Your task to perform on an android device: Clear all items from cart on costco. Search for "duracell triple a" on costco, select the first entry, and add it to the cart. Image 0: 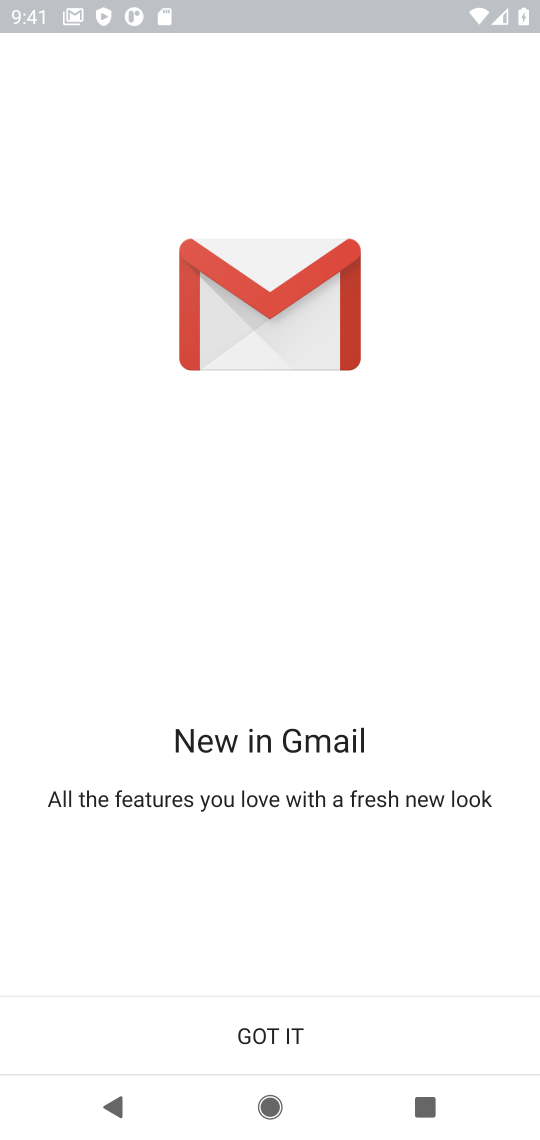
Step 0: press home button
Your task to perform on an android device: Clear all items from cart on costco. Search for "duracell triple a" on costco, select the first entry, and add it to the cart. Image 1: 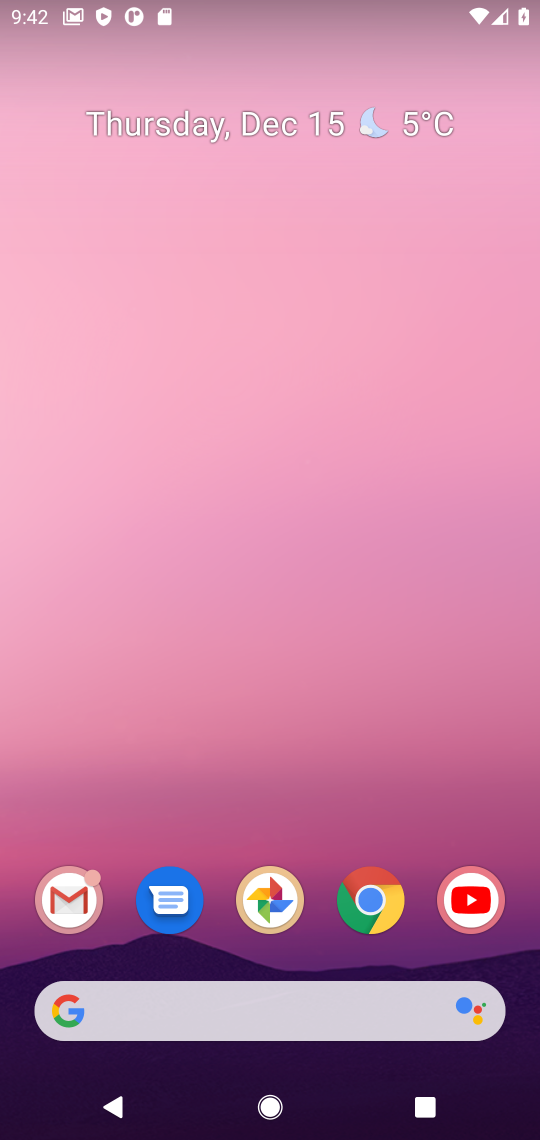
Step 1: click (383, 904)
Your task to perform on an android device: Clear all items from cart on costco. Search for "duracell triple a" on costco, select the first entry, and add it to the cart. Image 2: 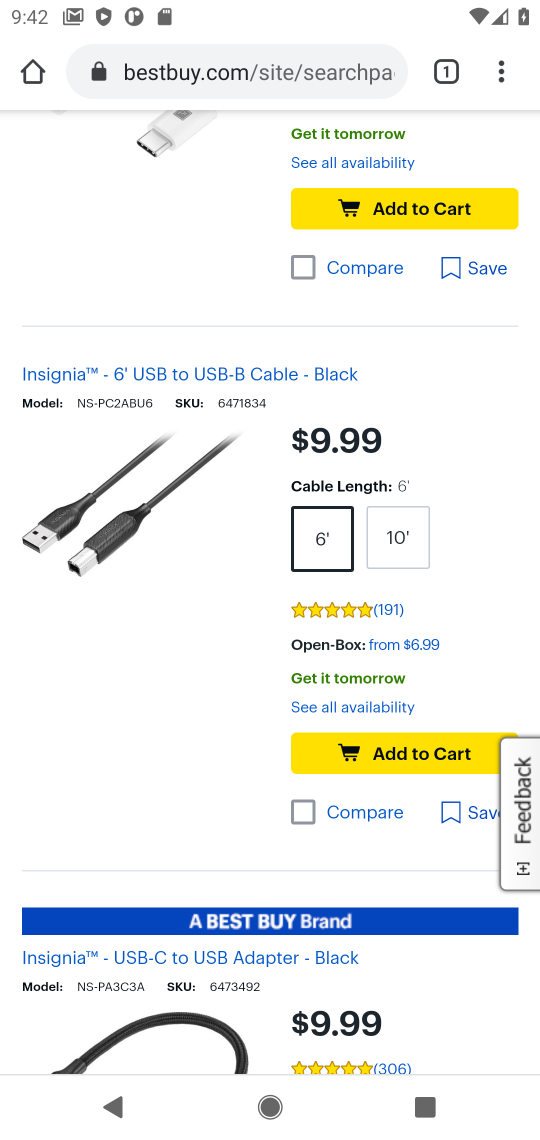
Step 2: click (227, 78)
Your task to perform on an android device: Clear all items from cart on costco. Search for "duracell triple a" on costco, select the first entry, and add it to the cart. Image 3: 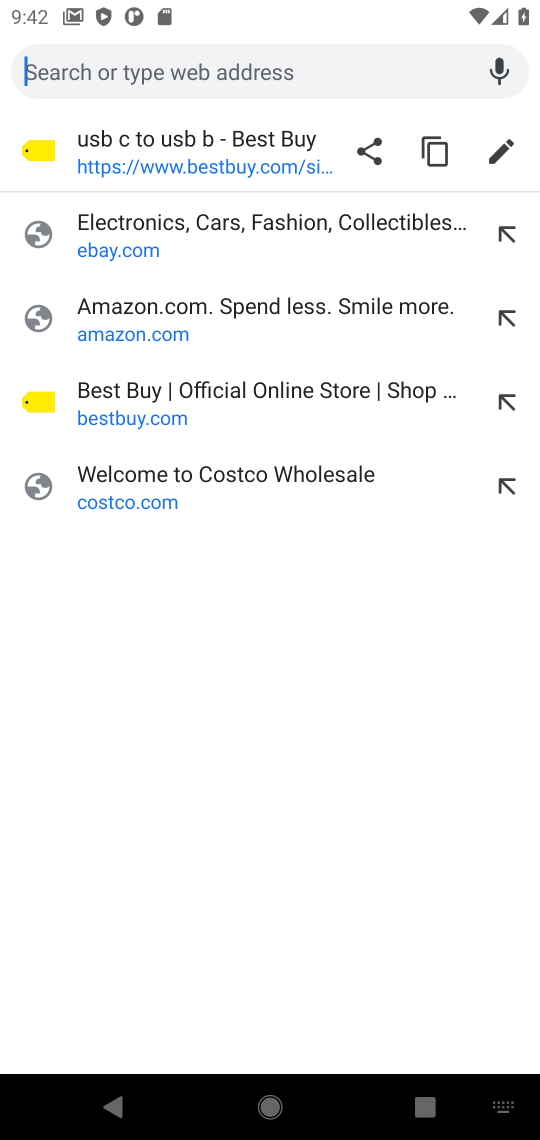
Step 3: type "costco"
Your task to perform on an android device: Clear all items from cart on costco. Search for "duracell triple a" on costco, select the first entry, and add it to the cart. Image 4: 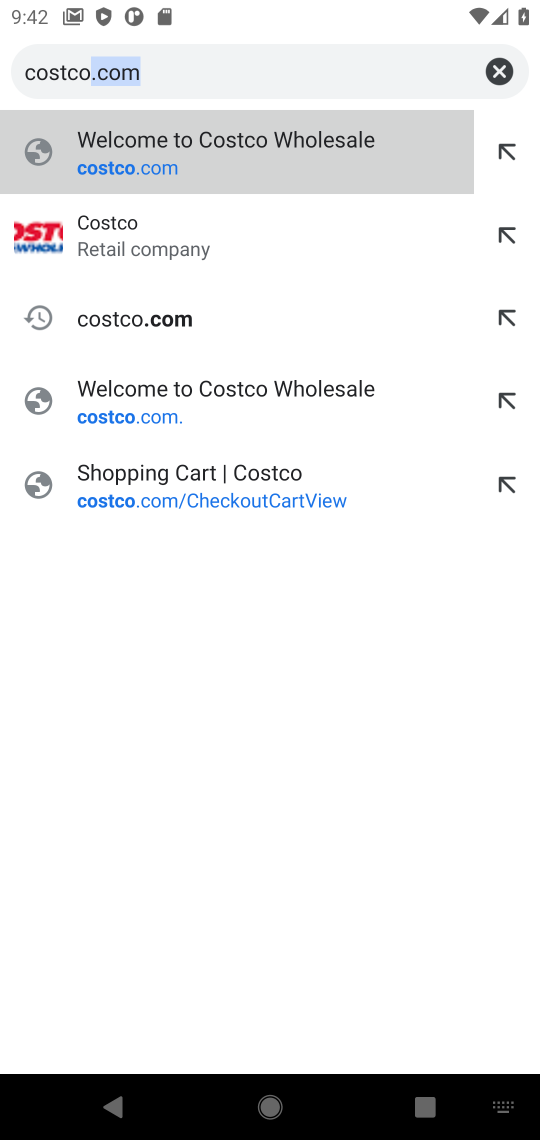
Step 4: click (281, 157)
Your task to perform on an android device: Clear all items from cart on costco. Search for "duracell triple a" on costco, select the first entry, and add it to the cart. Image 5: 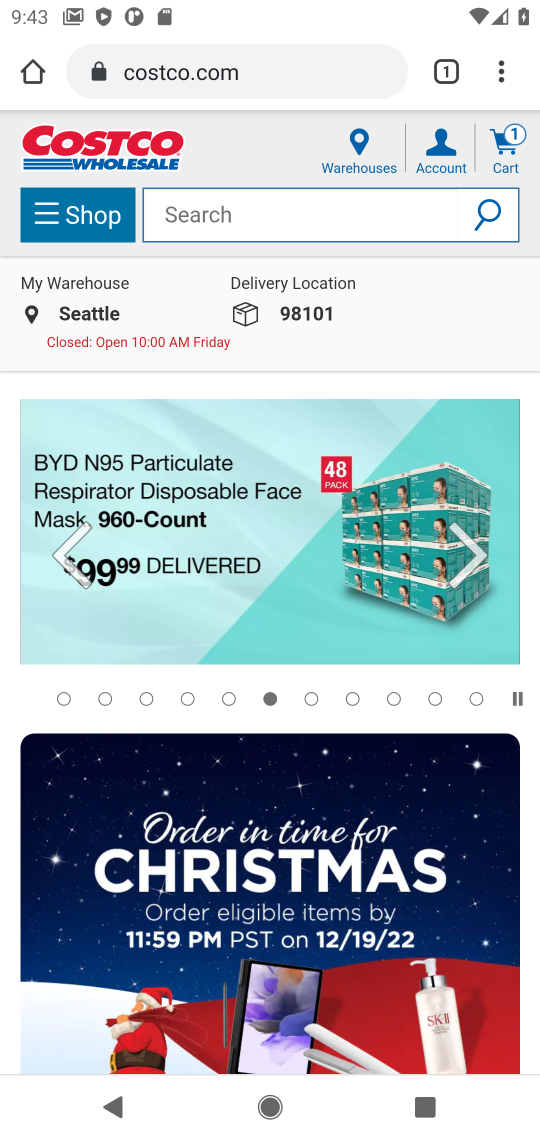
Step 5: click (513, 131)
Your task to perform on an android device: Clear all items from cart on costco. Search for "duracell triple a" on costco, select the first entry, and add it to the cart. Image 6: 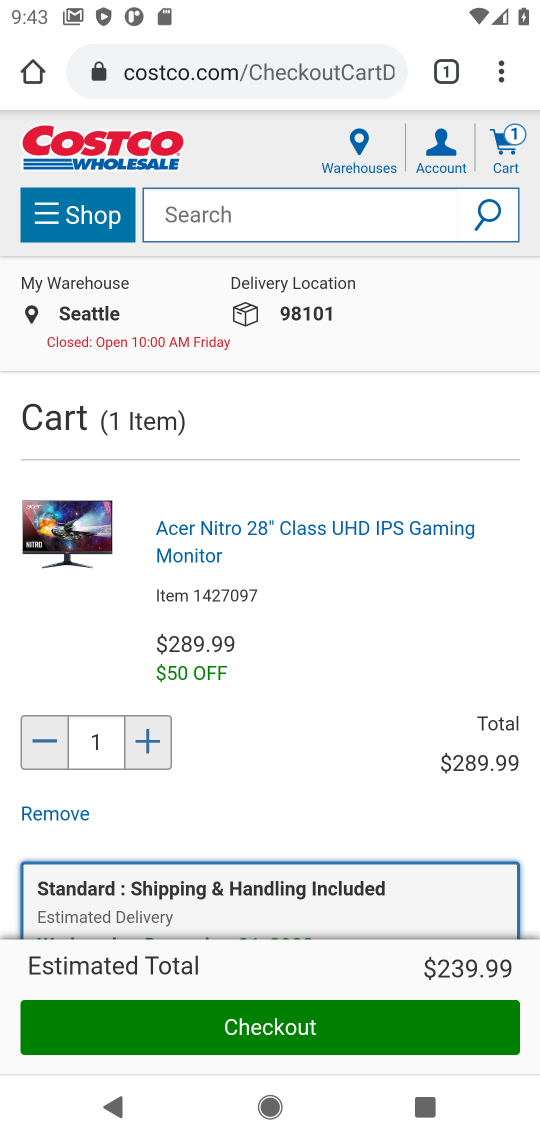
Step 6: click (149, 742)
Your task to perform on an android device: Clear all items from cart on costco. Search for "duracell triple a" on costco, select the first entry, and add it to the cart. Image 7: 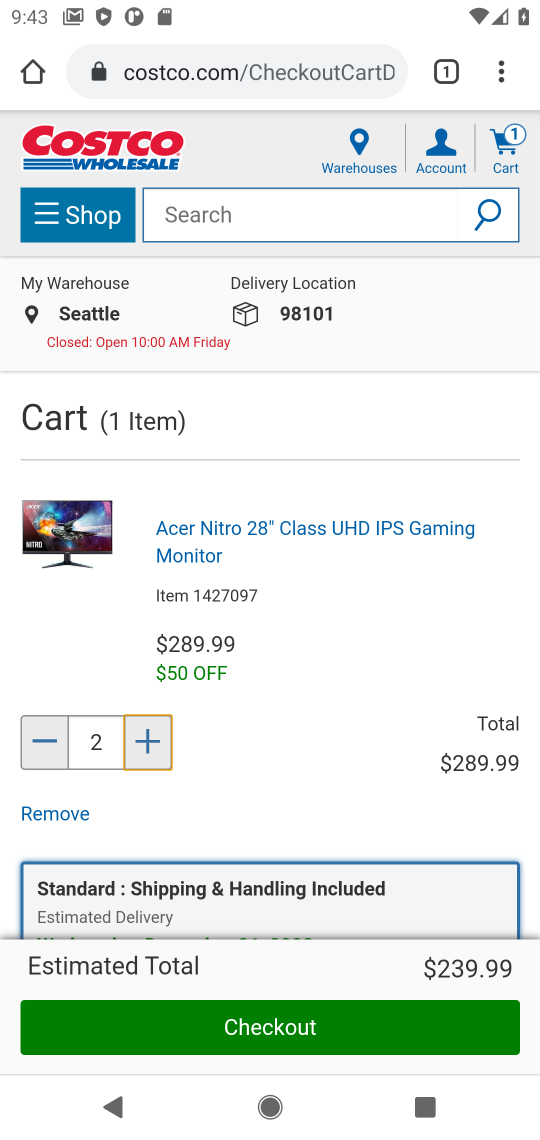
Step 7: click (50, 747)
Your task to perform on an android device: Clear all items from cart on costco. Search for "duracell triple a" on costco, select the first entry, and add it to the cart. Image 8: 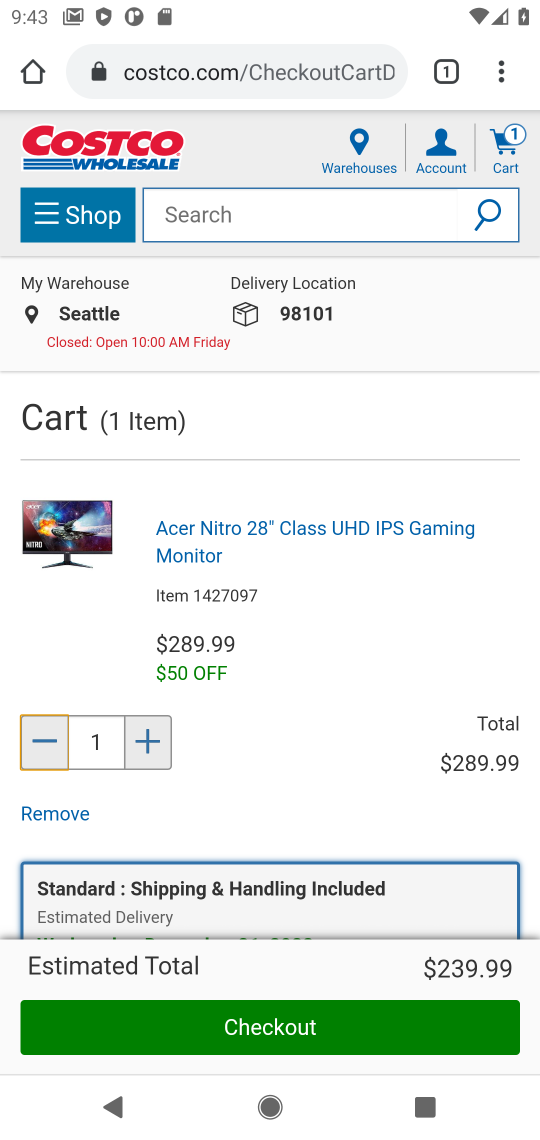
Step 8: click (50, 747)
Your task to perform on an android device: Clear all items from cart on costco. Search for "duracell triple a" on costco, select the first entry, and add it to the cart. Image 9: 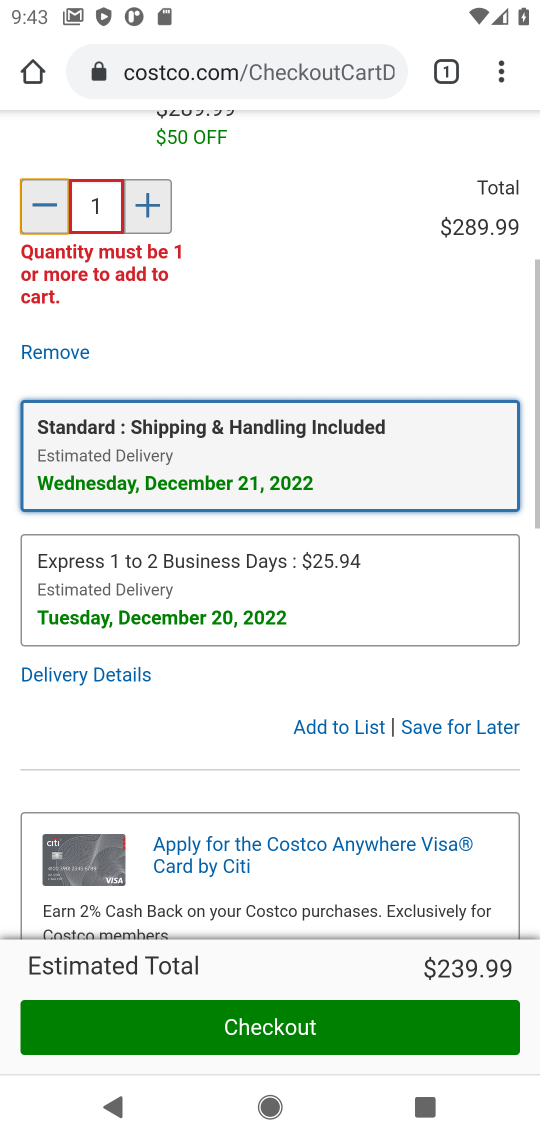
Step 9: click (50, 747)
Your task to perform on an android device: Clear all items from cart on costco. Search for "duracell triple a" on costco, select the first entry, and add it to the cart. Image 10: 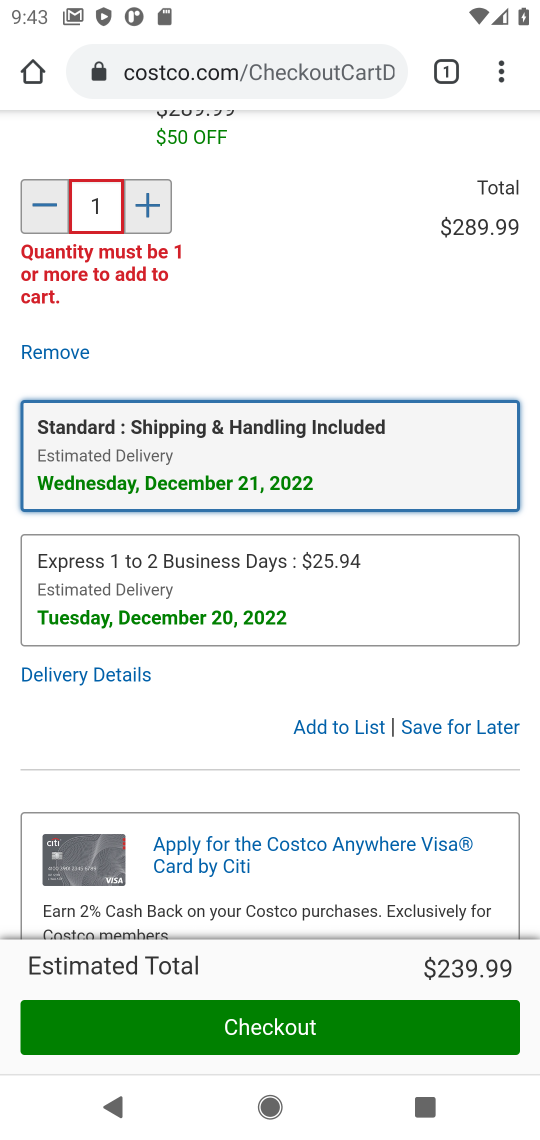
Step 10: click (39, 198)
Your task to perform on an android device: Clear all items from cart on costco. Search for "duracell triple a" on costco, select the first entry, and add it to the cart. Image 11: 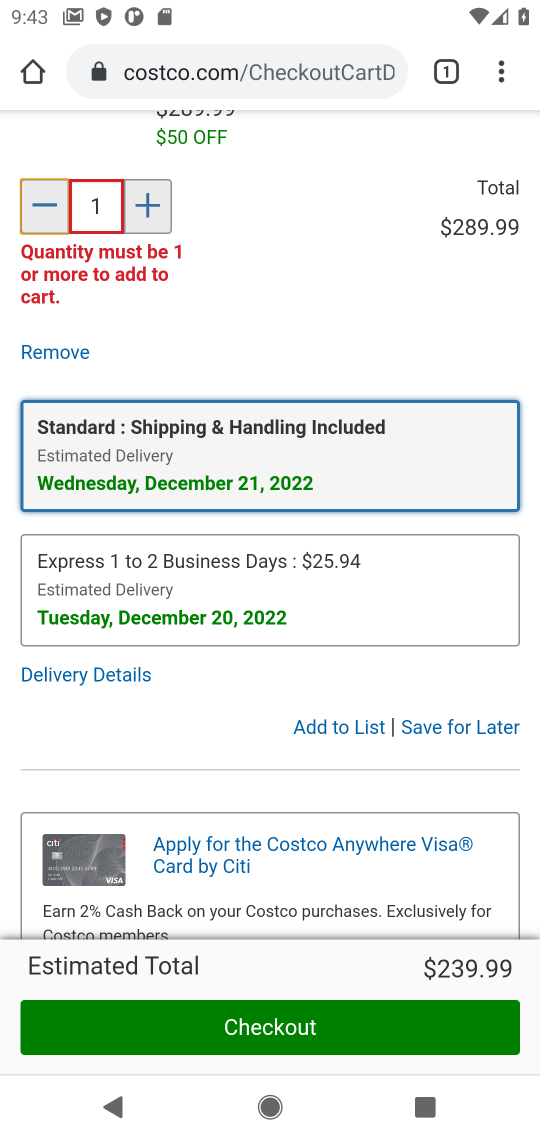
Step 11: click (41, 214)
Your task to perform on an android device: Clear all items from cart on costco. Search for "duracell triple a" on costco, select the first entry, and add it to the cart. Image 12: 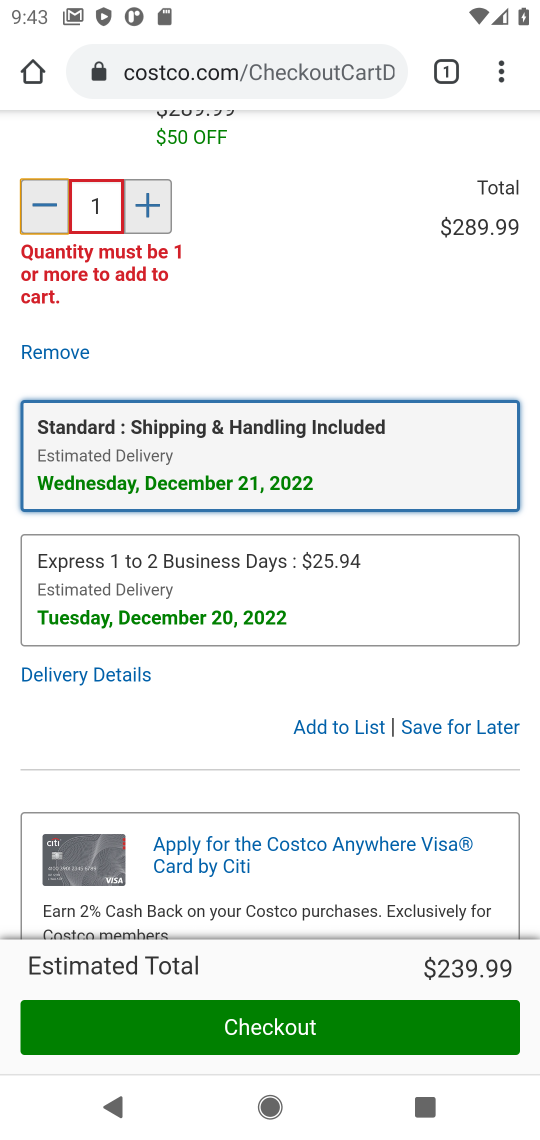
Step 12: drag from (417, 276) to (392, 581)
Your task to perform on an android device: Clear all items from cart on costco. Search for "duracell triple a" on costco, select the first entry, and add it to the cart. Image 13: 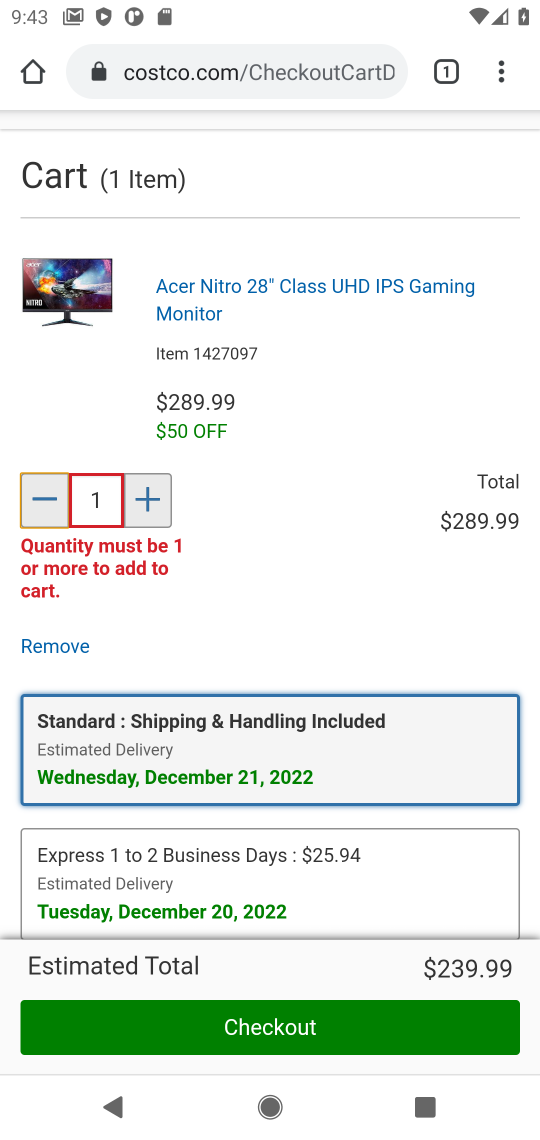
Step 13: click (34, 511)
Your task to perform on an android device: Clear all items from cart on costco. Search for "duracell triple a" on costco, select the first entry, and add it to the cart. Image 14: 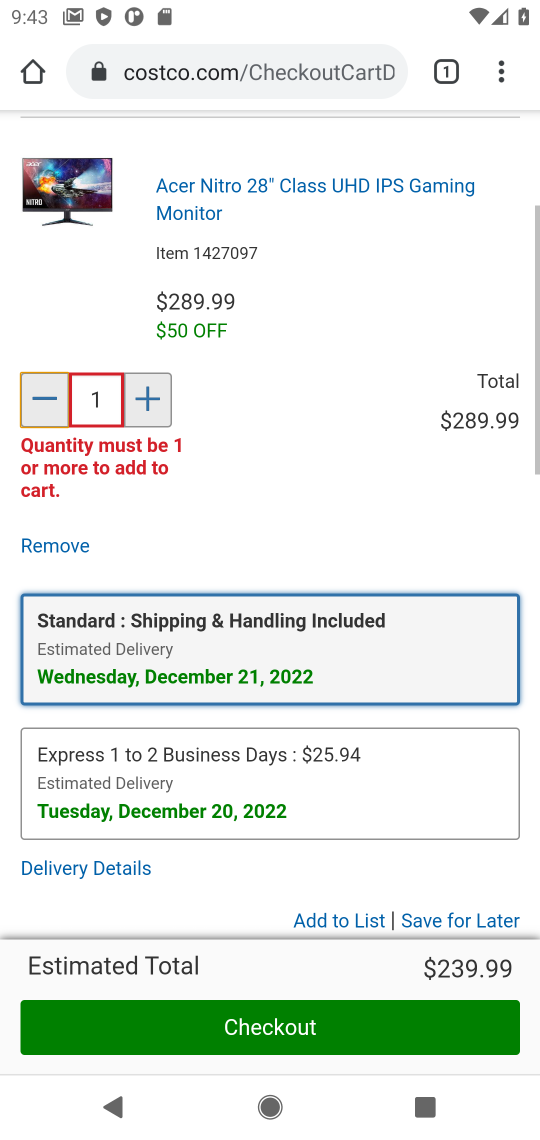
Step 14: click (34, 511)
Your task to perform on an android device: Clear all items from cart on costco. Search for "duracell triple a" on costco, select the first entry, and add it to the cart. Image 15: 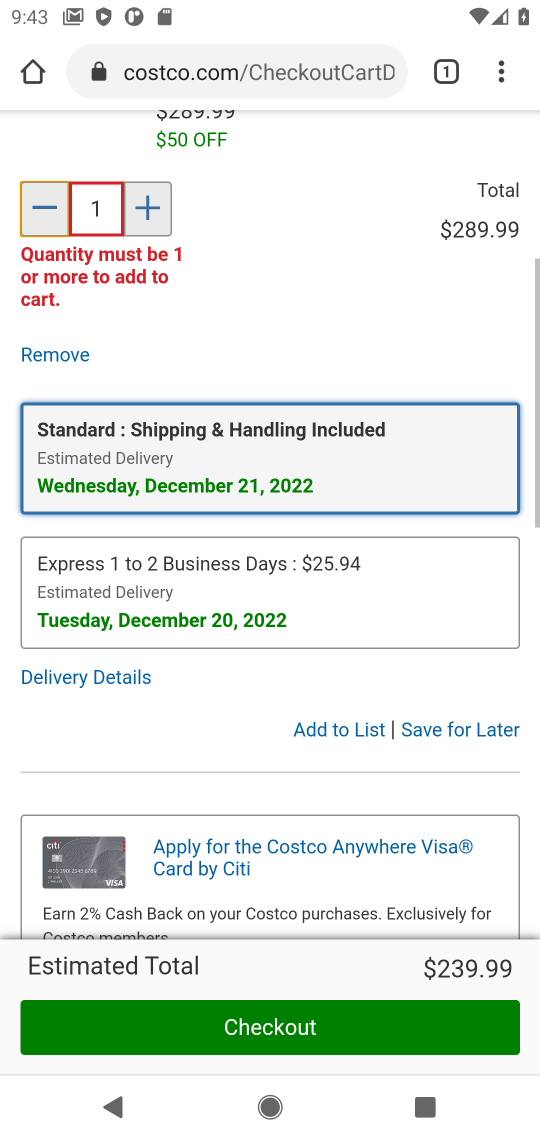
Step 15: click (34, 511)
Your task to perform on an android device: Clear all items from cart on costco. Search for "duracell triple a" on costco, select the first entry, and add it to the cart. Image 16: 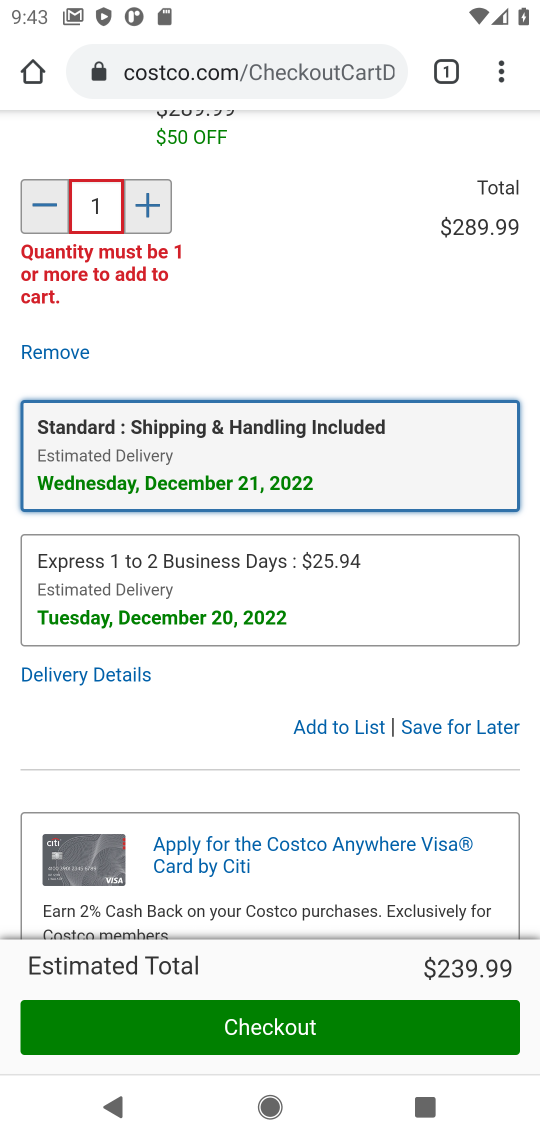
Step 16: click (43, 212)
Your task to perform on an android device: Clear all items from cart on costco. Search for "duracell triple a" on costco, select the first entry, and add it to the cart. Image 17: 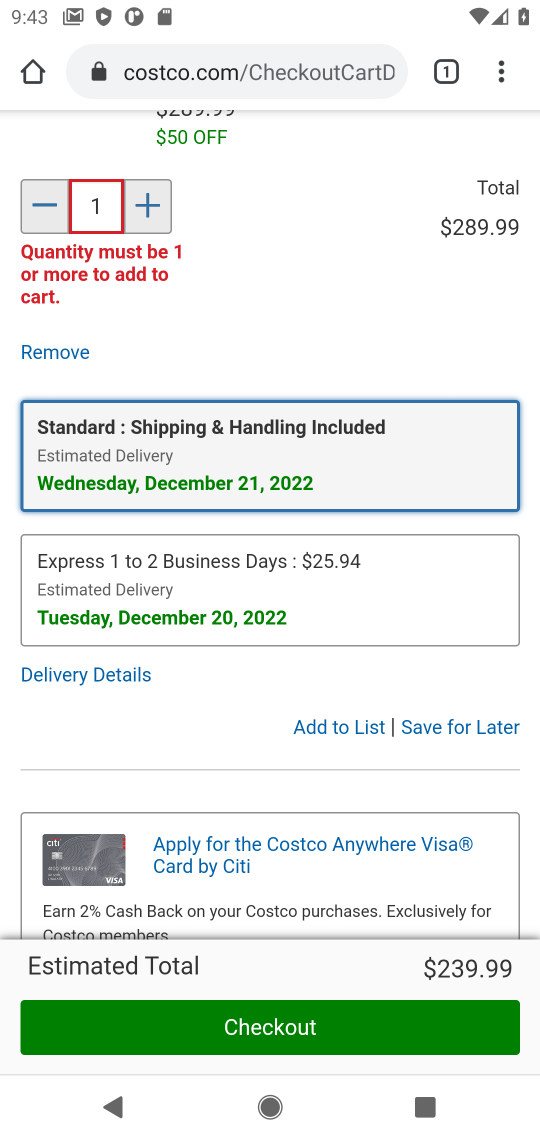
Step 17: click (43, 212)
Your task to perform on an android device: Clear all items from cart on costco. Search for "duracell triple a" on costco, select the first entry, and add it to the cart. Image 18: 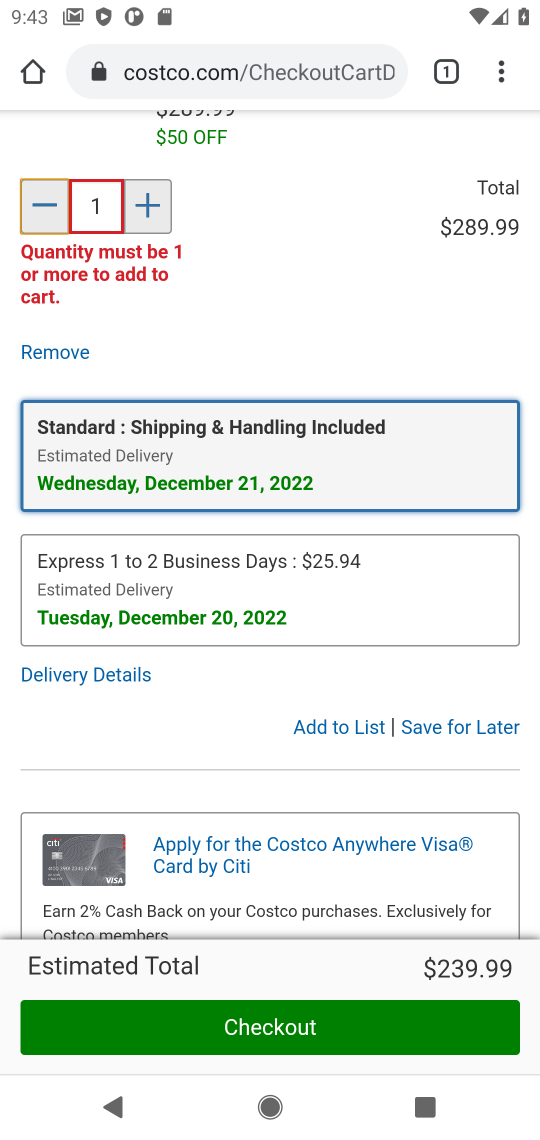
Step 18: click (43, 212)
Your task to perform on an android device: Clear all items from cart on costco. Search for "duracell triple a" on costco, select the first entry, and add it to the cart. Image 19: 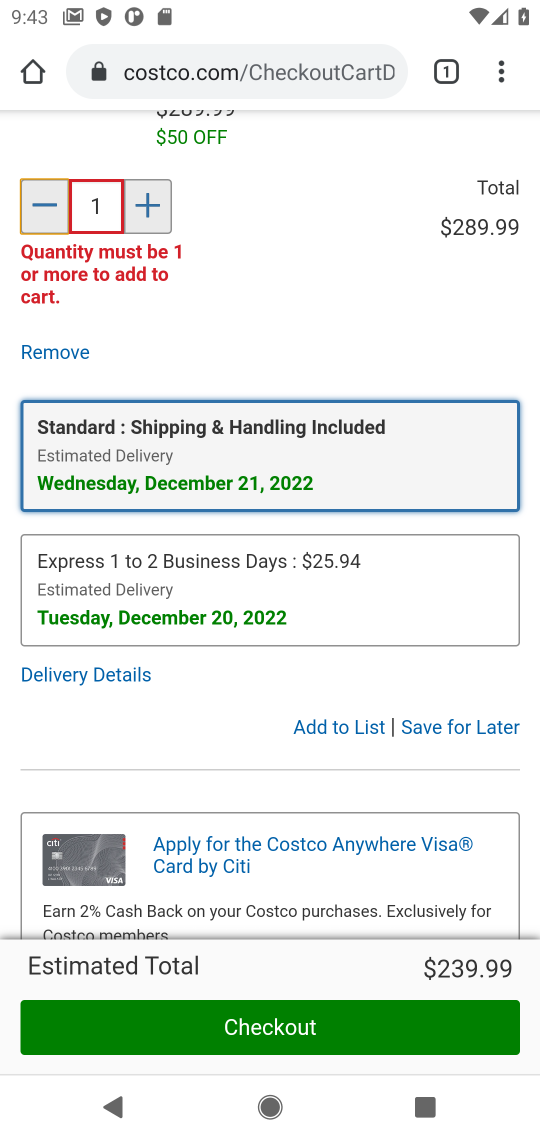
Step 19: click (43, 212)
Your task to perform on an android device: Clear all items from cart on costco. Search for "duracell triple a" on costco, select the first entry, and add it to the cart. Image 20: 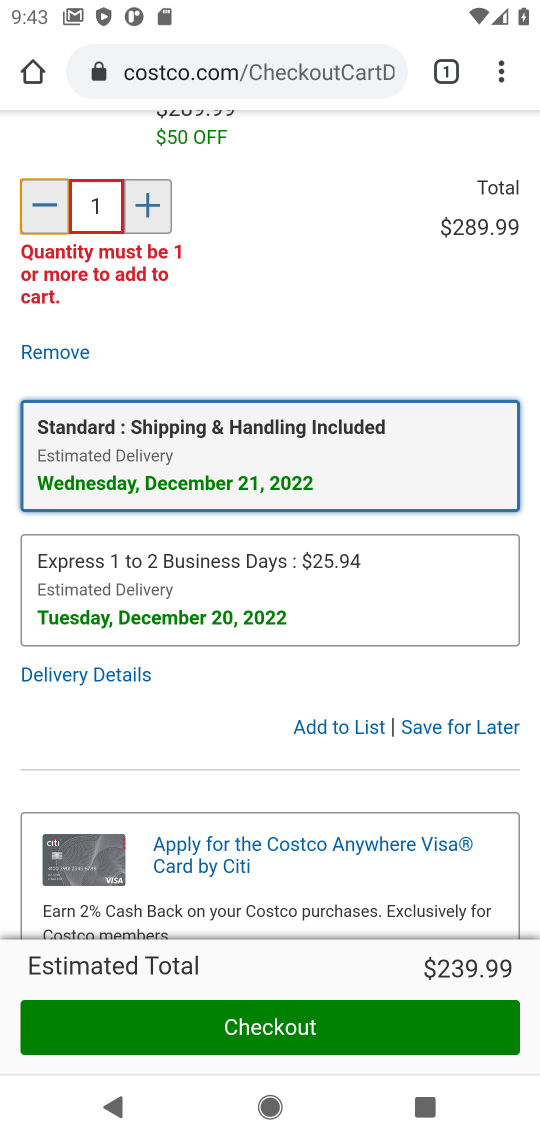
Step 20: task complete